Your task to perform on an android device: What's the weather? Image 0: 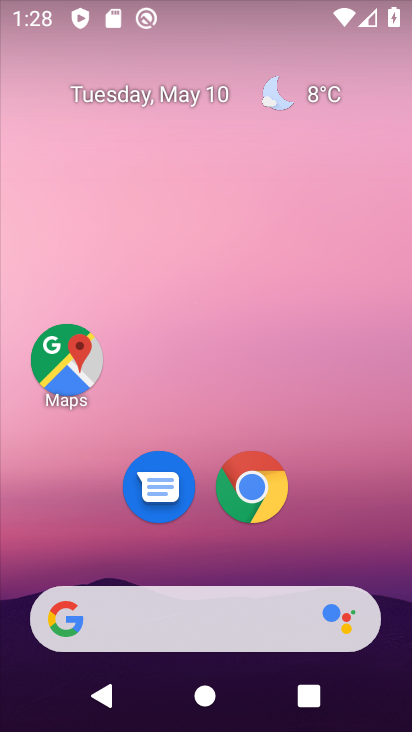
Step 0: click (319, 94)
Your task to perform on an android device: What's the weather? Image 1: 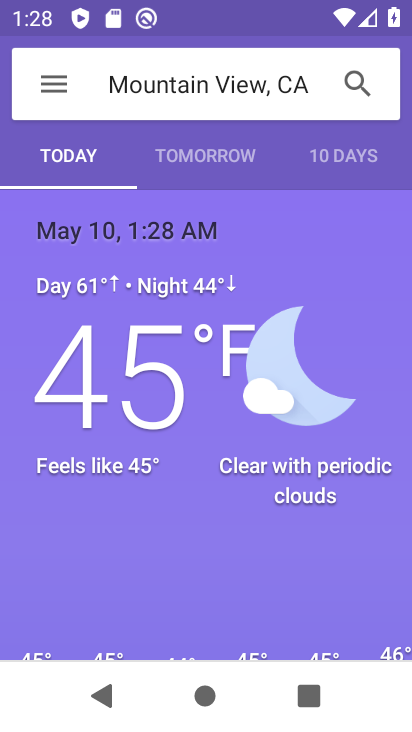
Step 1: task complete